Your task to perform on an android device: Open location settings Image 0: 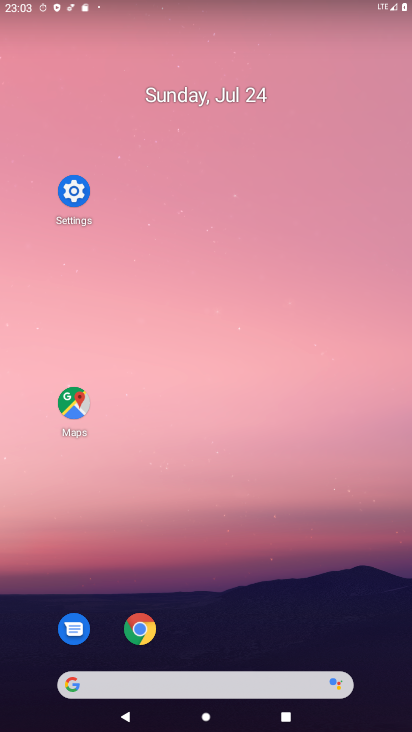
Step 0: click (233, 90)
Your task to perform on an android device: Open location settings Image 1: 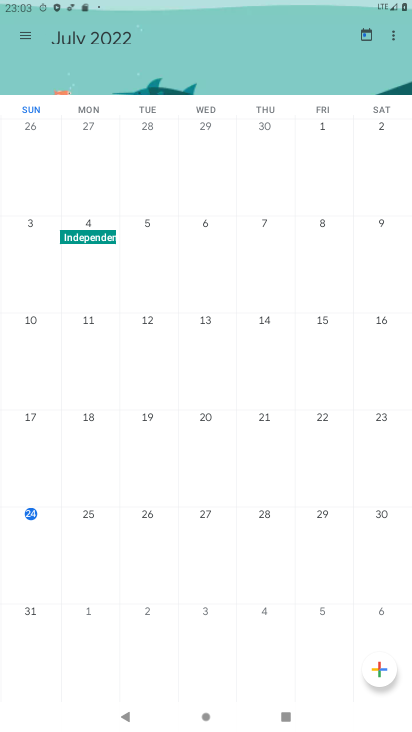
Step 1: press back button
Your task to perform on an android device: Open location settings Image 2: 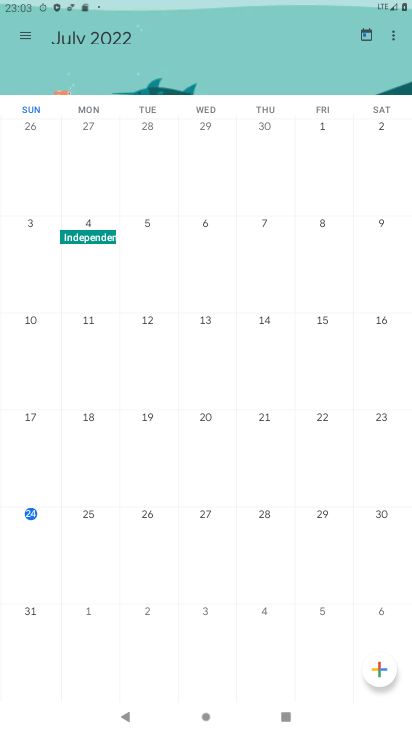
Step 2: press back button
Your task to perform on an android device: Open location settings Image 3: 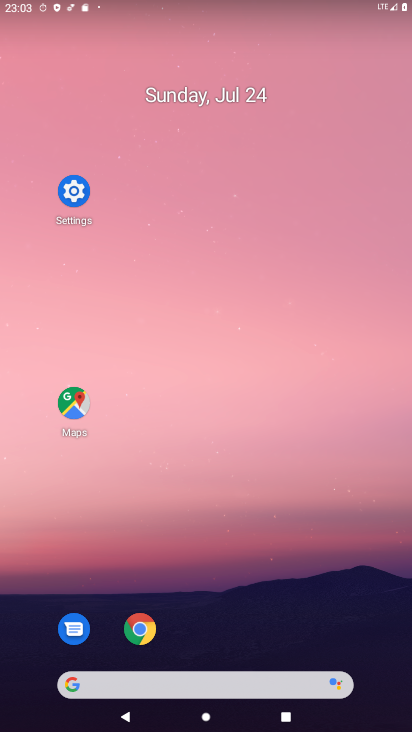
Step 3: drag from (205, 246) to (203, 21)
Your task to perform on an android device: Open location settings Image 4: 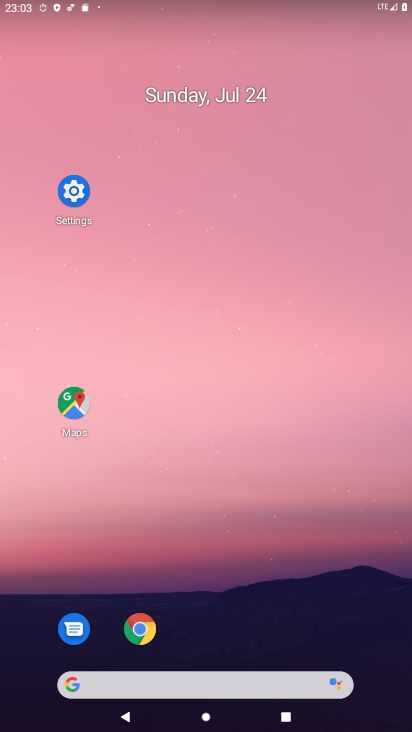
Step 4: drag from (242, 526) to (234, 13)
Your task to perform on an android device: Open location settings Image 5: 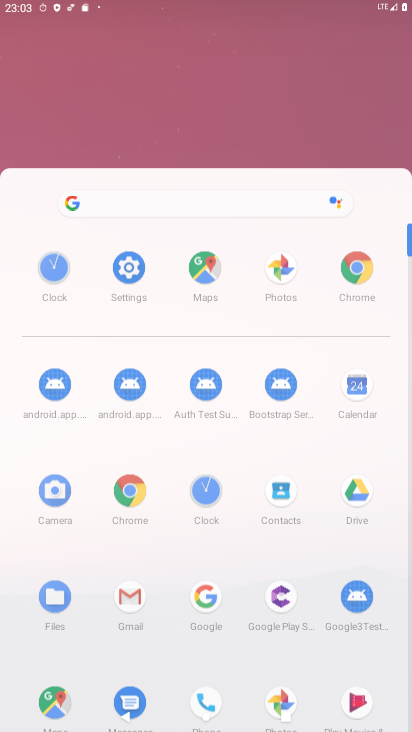
Step 5: drag from (270, 484) to (253, 31)
Your task to perform on an android device: Open location settings Image 6: 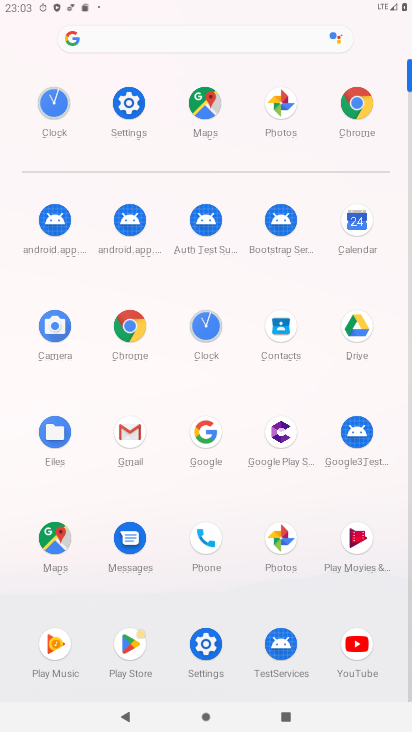
Step 6: drag from (289, 334) to (317, 6)
Your task to perform on an android device: Open location settings Image 7: 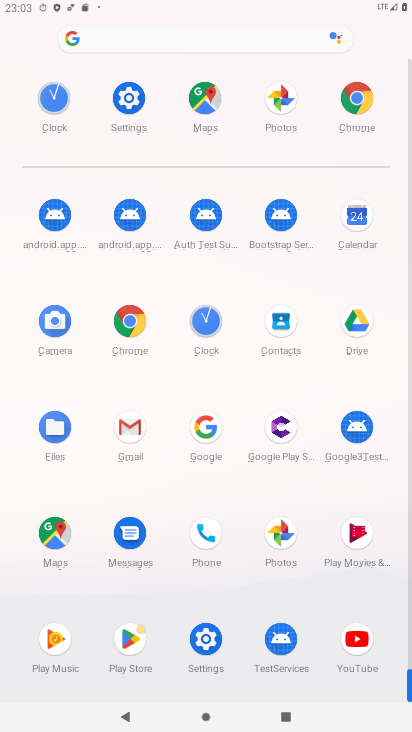
Step 7: click (125, 99)
Your task to perform on an android device: Open location settings Image 8: 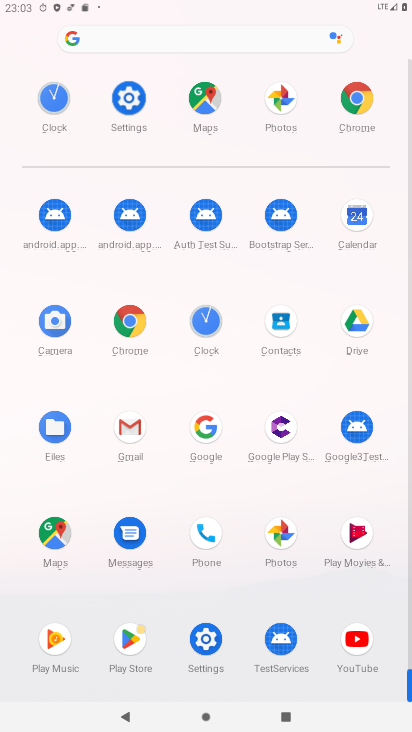
Step 8: click (130, 108)
Your task to perform on an android device: Open location settings Image 9: 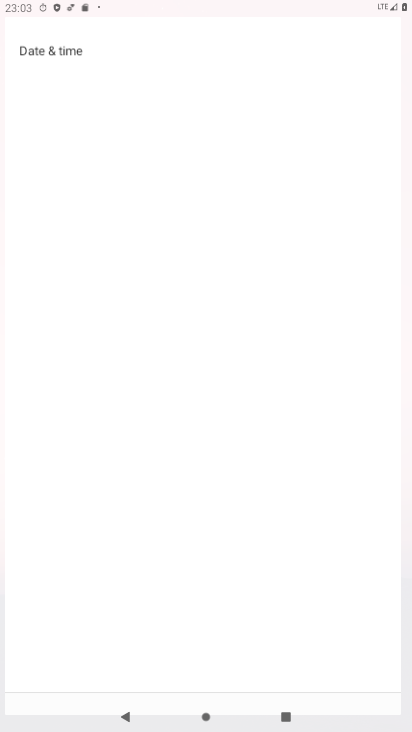
Step 9: click (134, 112)
Your task to perform on an android device: Open location settings Image 10: 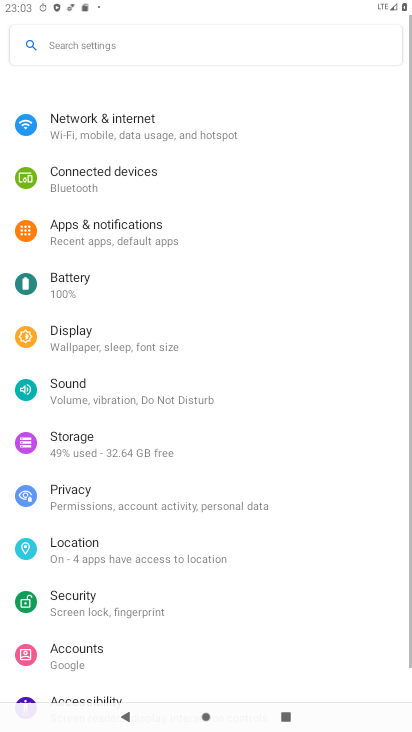
Step 10: click (112, 99)
Your task to perform on an android device: Open location settings Image 11: 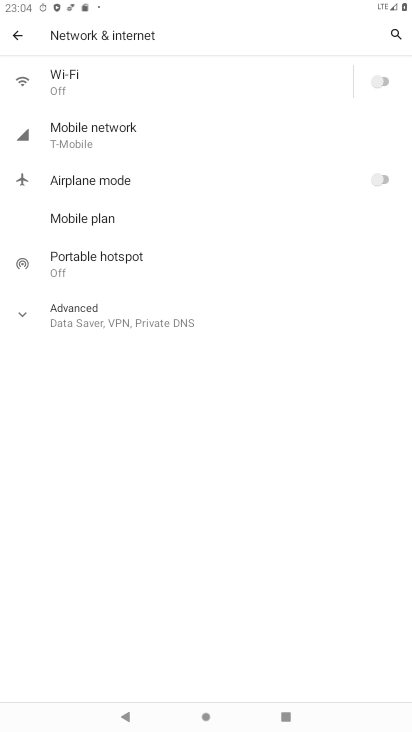
Step 11: click (17, 28)
Your task to perform on an android device: Open location settings Image 12: 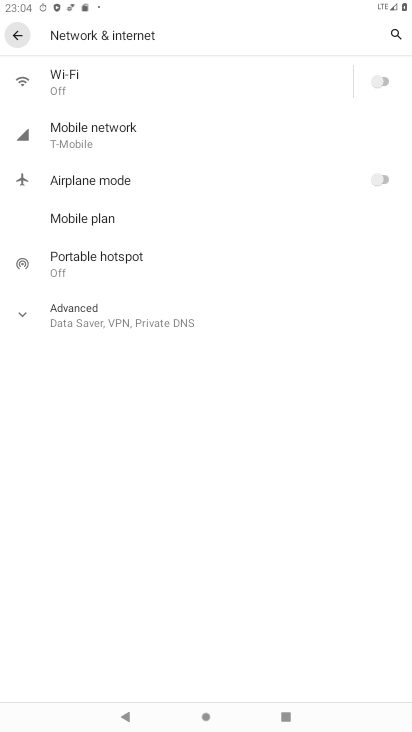
Step 12: click (12, 26)
Your task to perform on an android device: Open location settings Image 13: 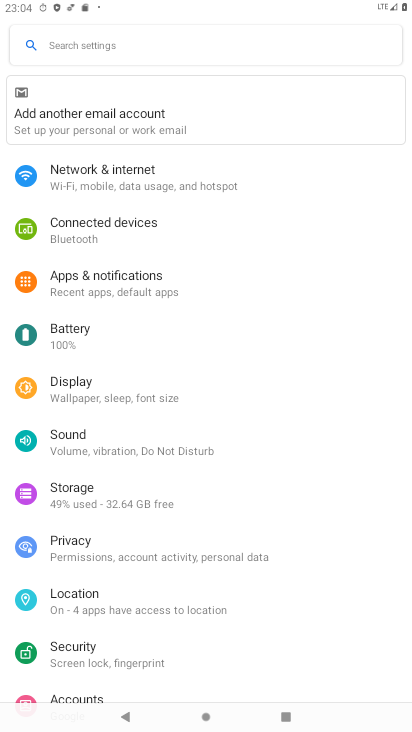
Step 13: click (83, 608)
Your task to perform on an android device: Open location settings Image 14: 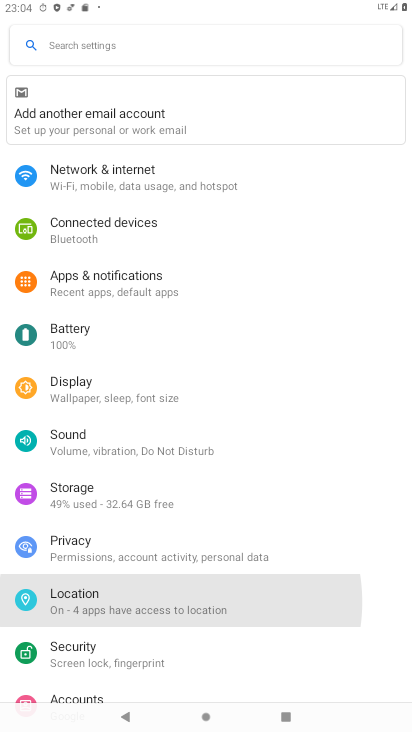
Step 14: click (83, 606)
Your task to perform on an android device: Open location settings Image 15: 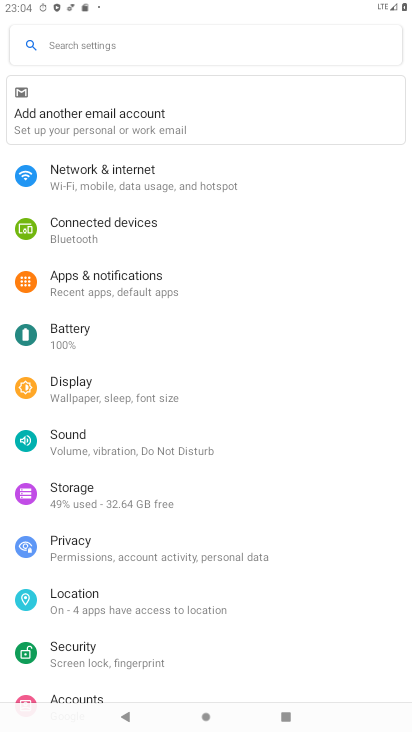
Step 15: click (83, 606)
Your task to perform on an android device: Open location settings Image 16: 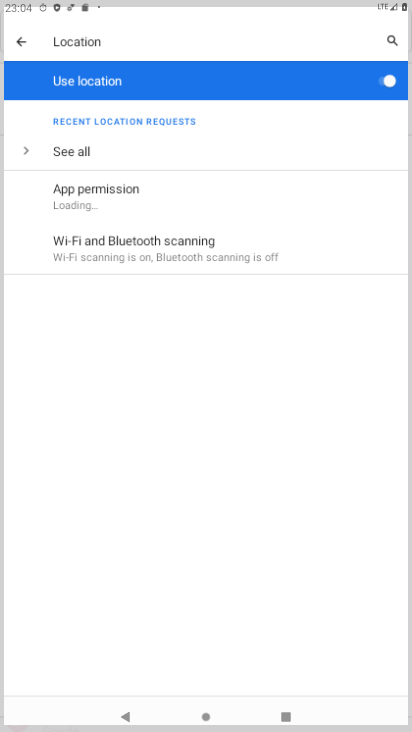
Step 16: click (83, 606)
Your task to perform on an android device: Open location settings Image 17: 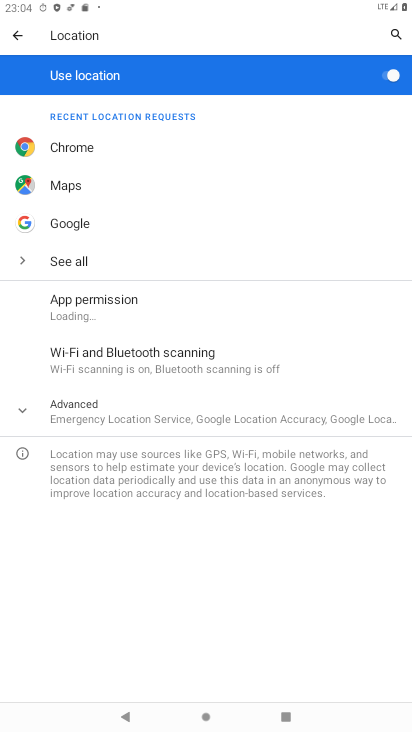
Step 17: task complete